Your task to perform on an android device: toggle translation in the chrome app Image 0: 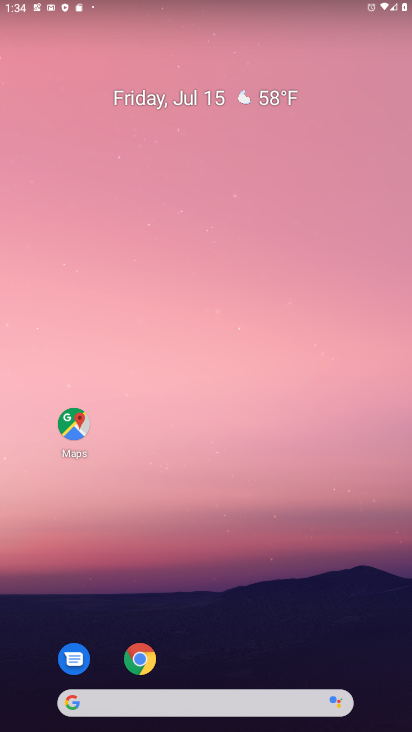
Step 0: click (138, 660)
Your task to perform on an android device: toggle translation in the chrome app Image 1: 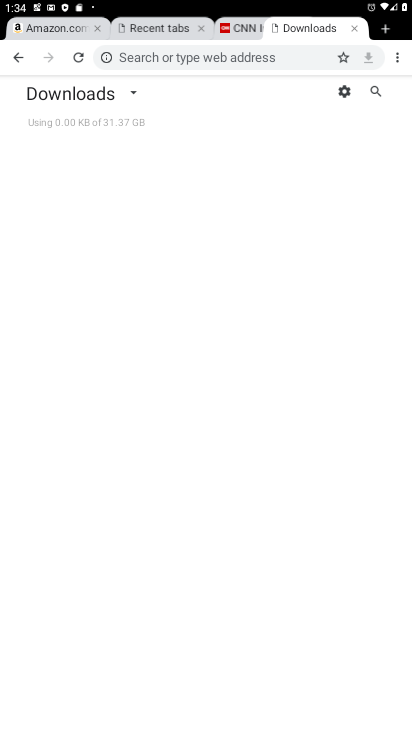
Step 1: click (396, 59)
Your task to perform on an android device: toggle translation in the chrome app Image 2: 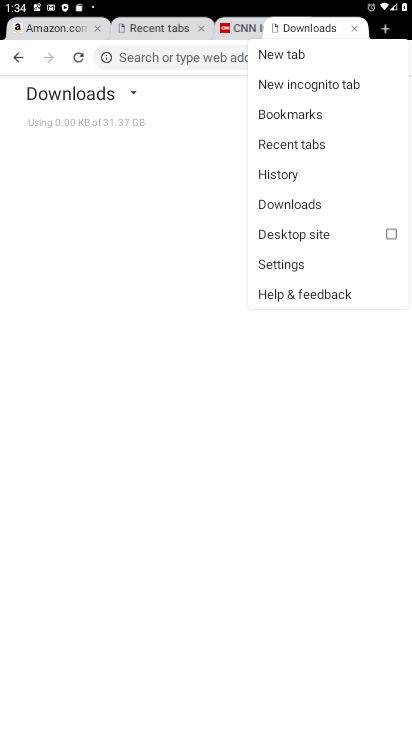
Step 2: click (284, 261)
Your task to perform on an android device: toggle translation in the chrome app Image 3: 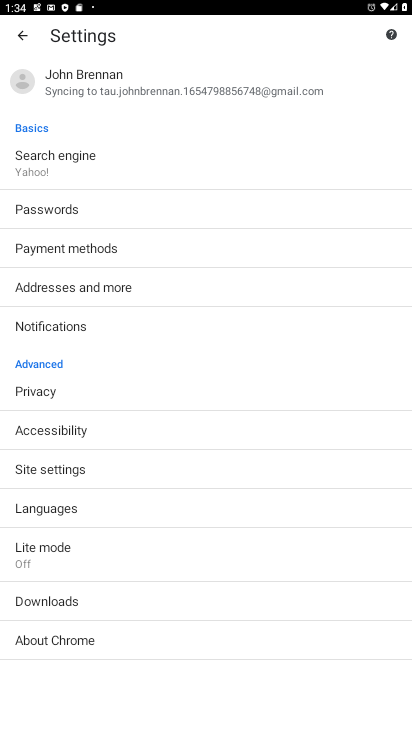
Step 3: click (37, 510)
Your task to perform on an android device: toggle translation in the chrome app Image 4: 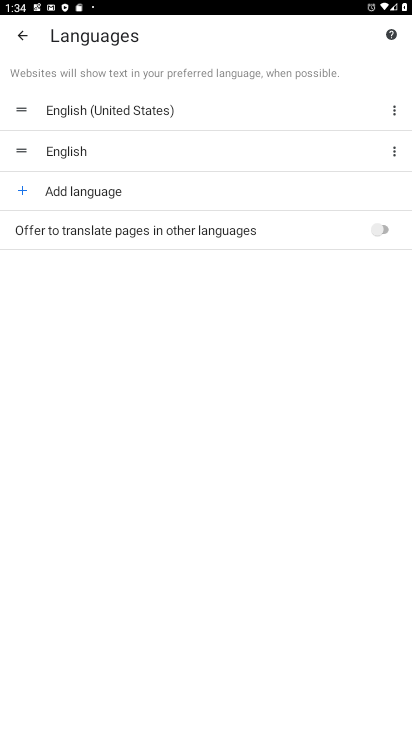
Step 4: click (381, 226)
Your task to perform on an android device: toggle translation in the chrome app Image 5: 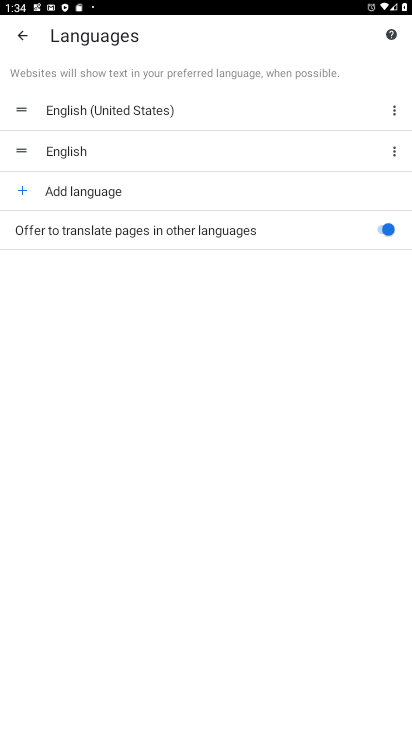
Step 5: task complete